Your task to perform on an android device: Open calendar and show me the third week of next month Image 0: 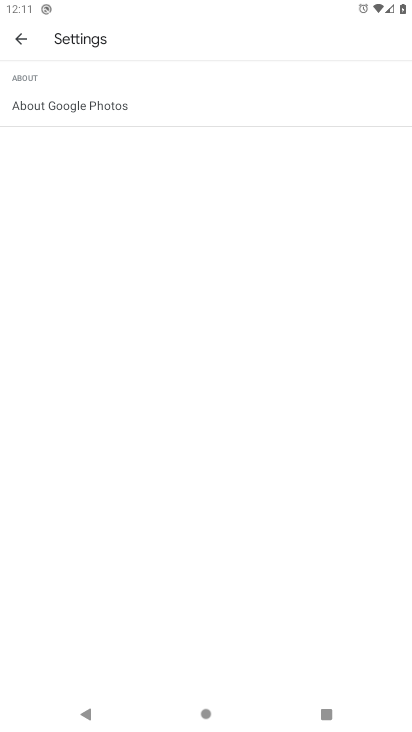
Step 0: press home button
Your task to perform on an android device: Open calendar and show me the third week of next month Image 1: 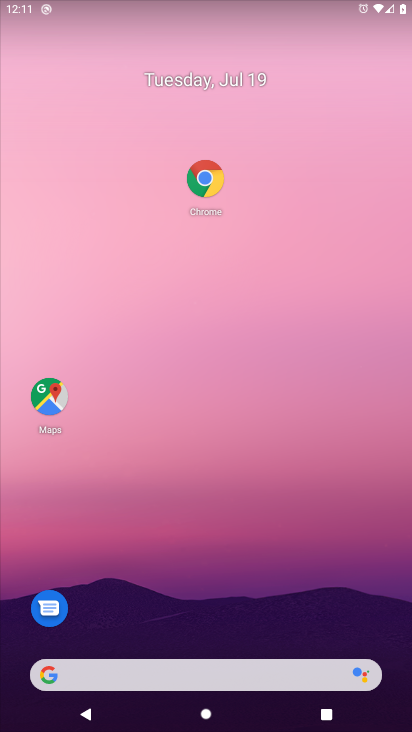
Step 1: drag from (35, 685) to (172, 244)
Your task to perform on an android device: Open calendar and show me the third week of next month Image 2: 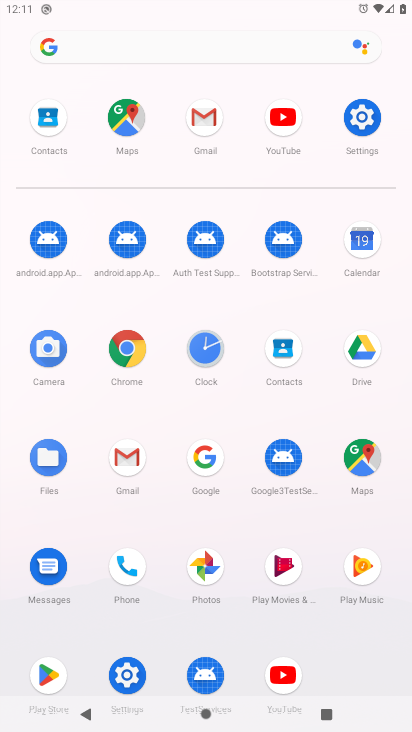
Step 2: click (369, 255)
Your task to perform on an android device: Open calendar and show me the third week of next month Image 3: 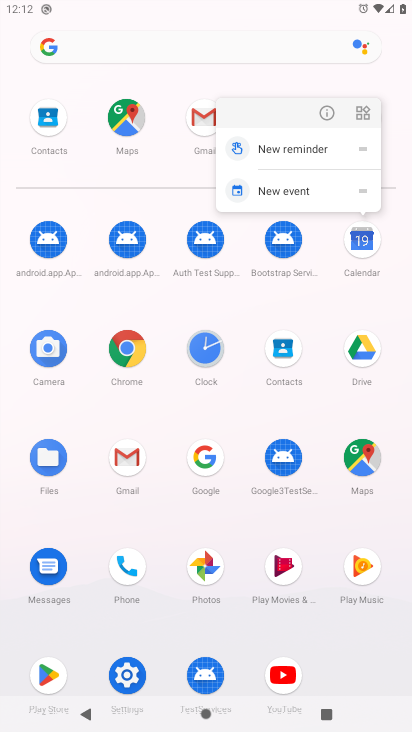
Step 3: click (368, 254)
Your task to perform on an android device: Open calendar and show me the third week of next month Image 4: 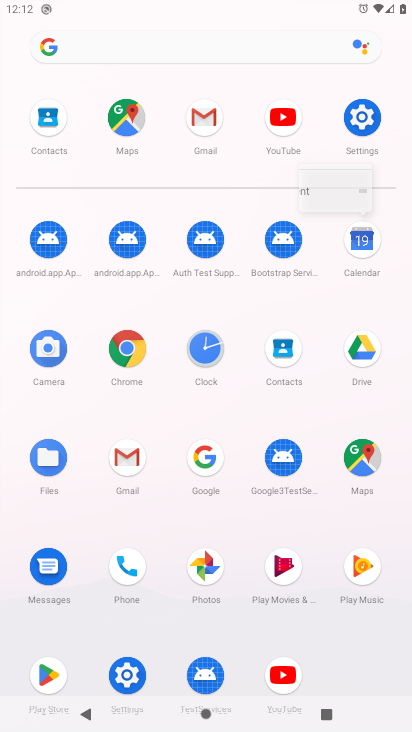
Step 4: click (368, 253)
Your task to perform on an android device: Open calendar and show me the third week of next month Image 5: 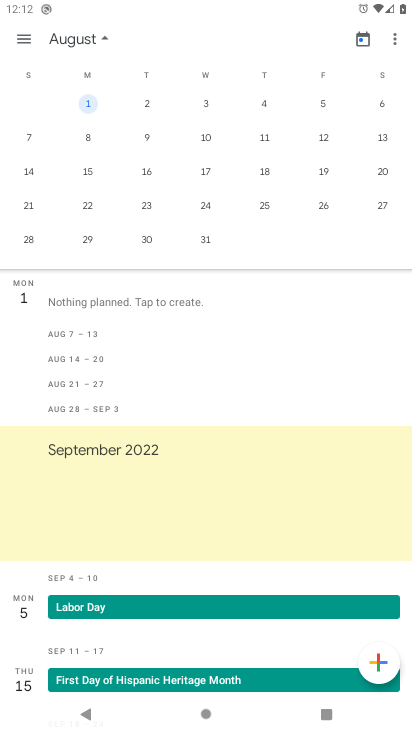
Step 5: click (86, 172)
Your task to perform on an android device: Open calendar and show me the third week of next month Image 6: 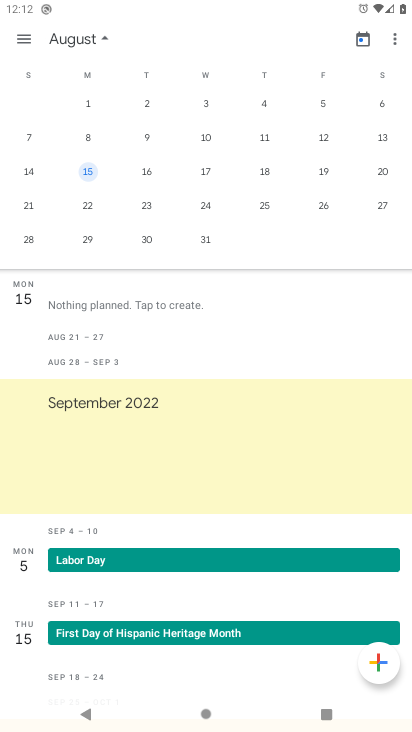
Step 6: task complete